Your task to perform on an android device: turn on showing notifications on the lock screen Image 0: 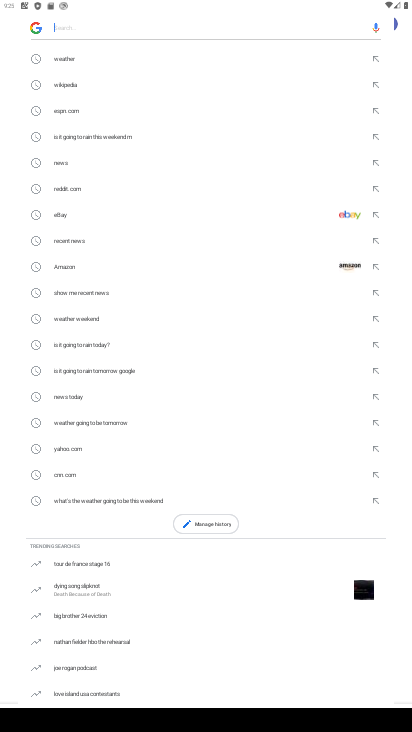
Step 0: press home button
Your task to perform on an android device: turn on showing notifications on the lock screen Image 1: 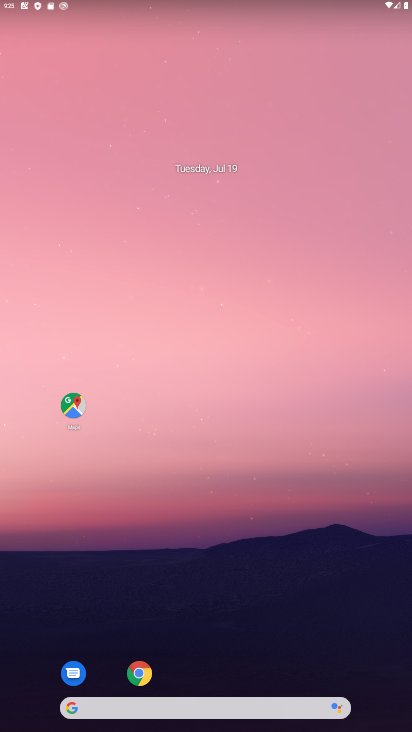
Step 1: drag from (189, 672) to (181, 127)
Your task to perform on an android device: turn on showing notifications on the lock screen Image 2: 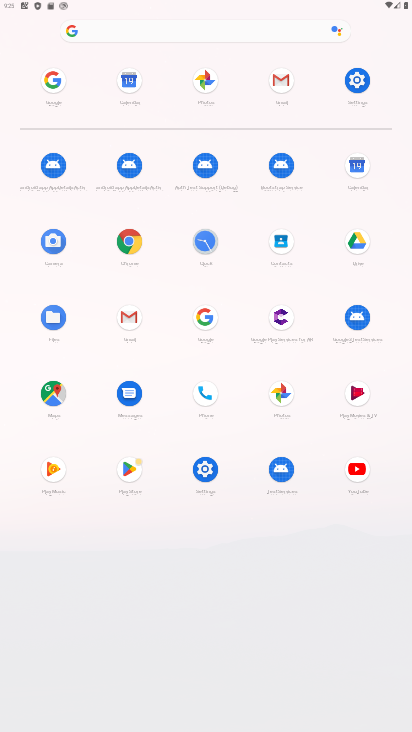
Step 2: click (368, 93)
Your task to perform on an android device: turn on showing notifications on the lock screen Image 3: 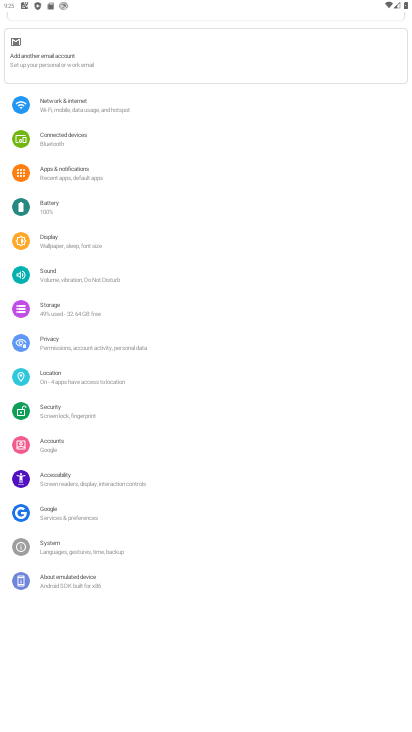
Step 3: click (103, 175)
Your task to perform on an android device: turn on showing notifications on the lock screen Image 4: 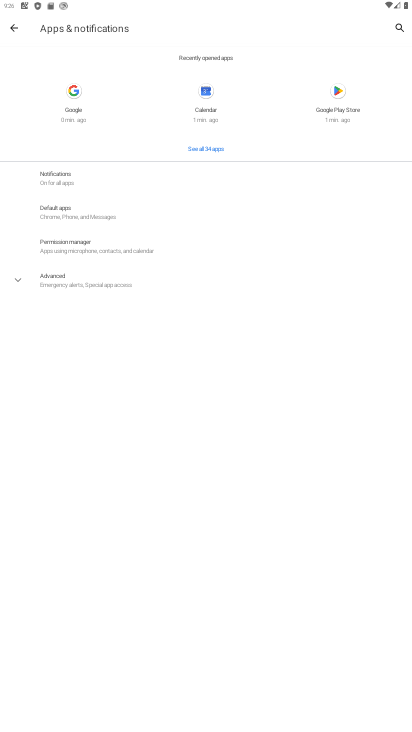
Step 4: click (127, 170)
Your task to perform on an android device: turn on showing notifications on the lock screen Image 5: 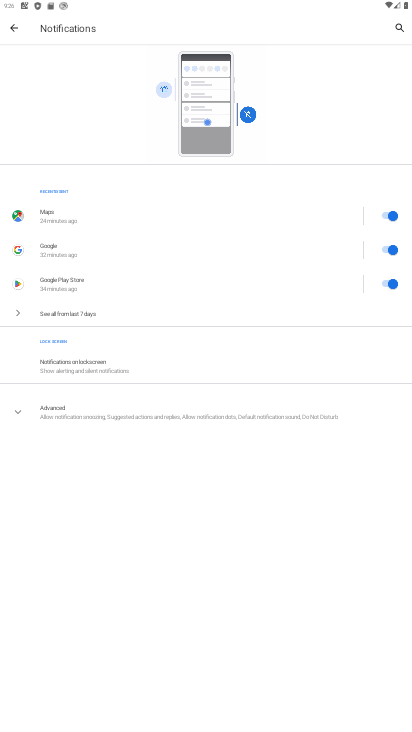
Step 5: click (114, 358)
Your task to perform on an android device: turn on showing notifications on the lock screen Image 6: 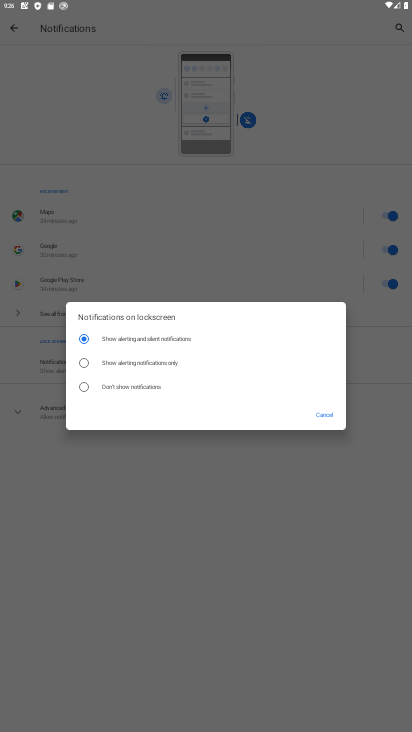
Step 6: task complete